Your task to perform on an android device: set the timer Image 0: 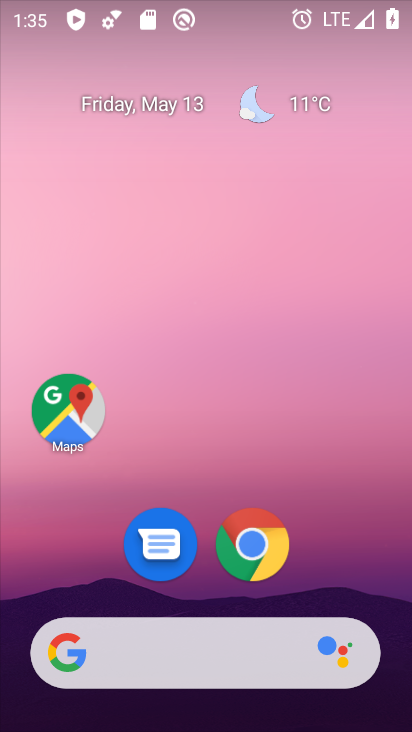
Step 0: drag from (200, 586) to (183, 145)
Your task to perform on an android device: set the timer Image 1: 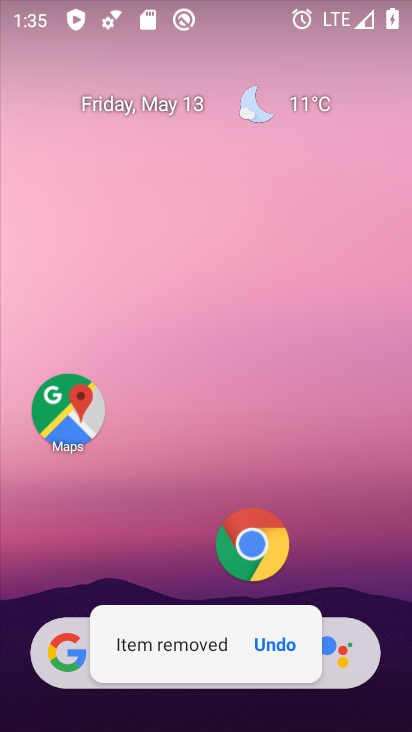
Step 1: drag from (190, 565) to (211, 169)
Your task to perform on an android device: set the timer Image 2: 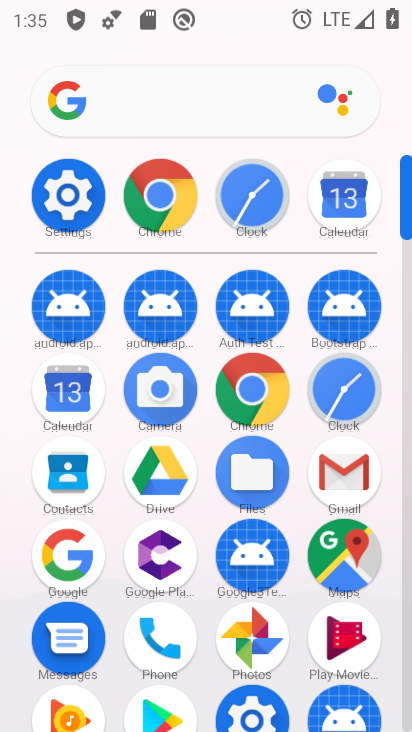
Step 2: click (348, 387)
Your task to perform on an android device: set the timer Image 3: 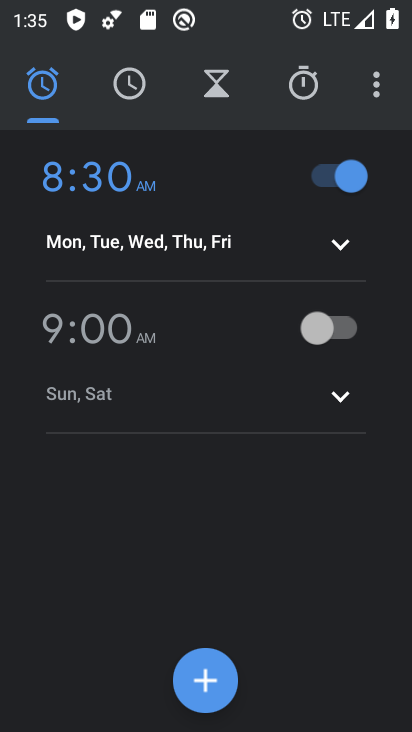
Step 3: click (307, 90)
Your task to perform on an android device: set the timer Image 4: 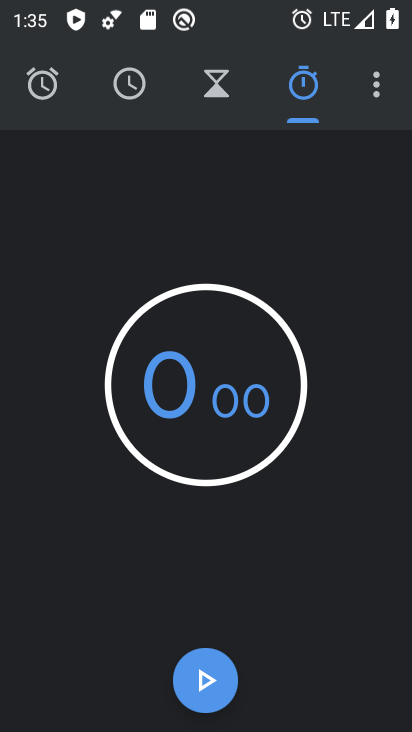
Step 4: click (231, 97)
Your task to perform on an android device: set the timer Image 5: 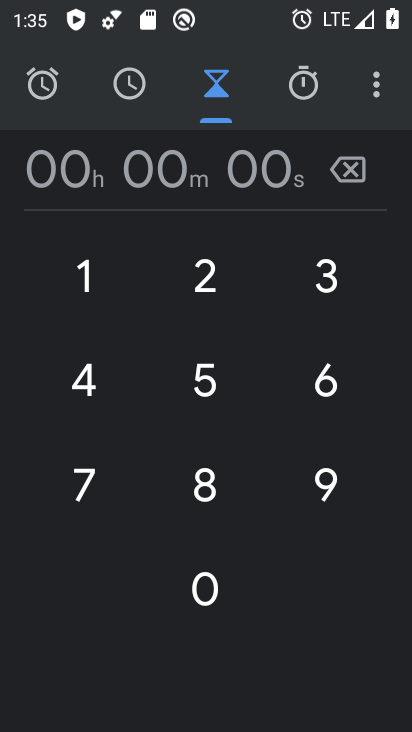
Step 5: click (213, 385)
Your task to perform on an android device: set the timer Image 6: 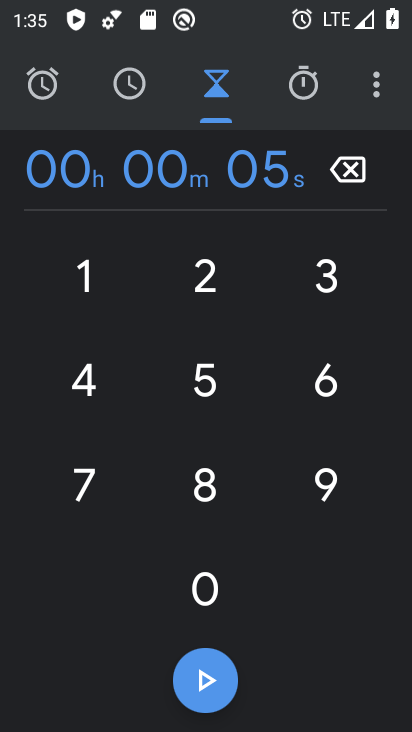
Step 6: click (96, 384)
Your task to perform on an android device: set the timer Image 7: 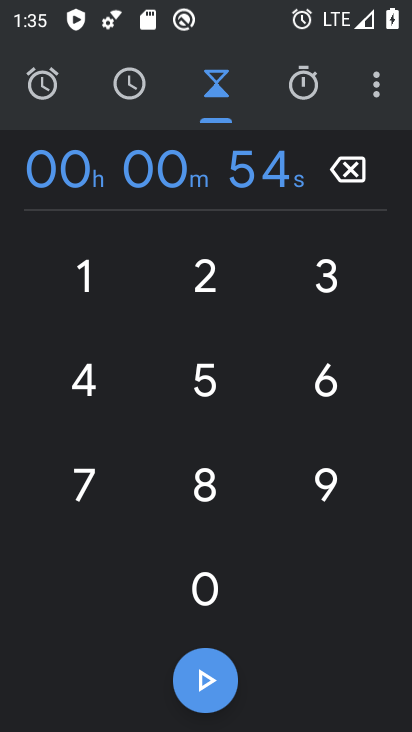
Step 7: task complete